Your task to perform on an android device: uninstall "Expedia: Hotels, Flights & Car" Image 0: 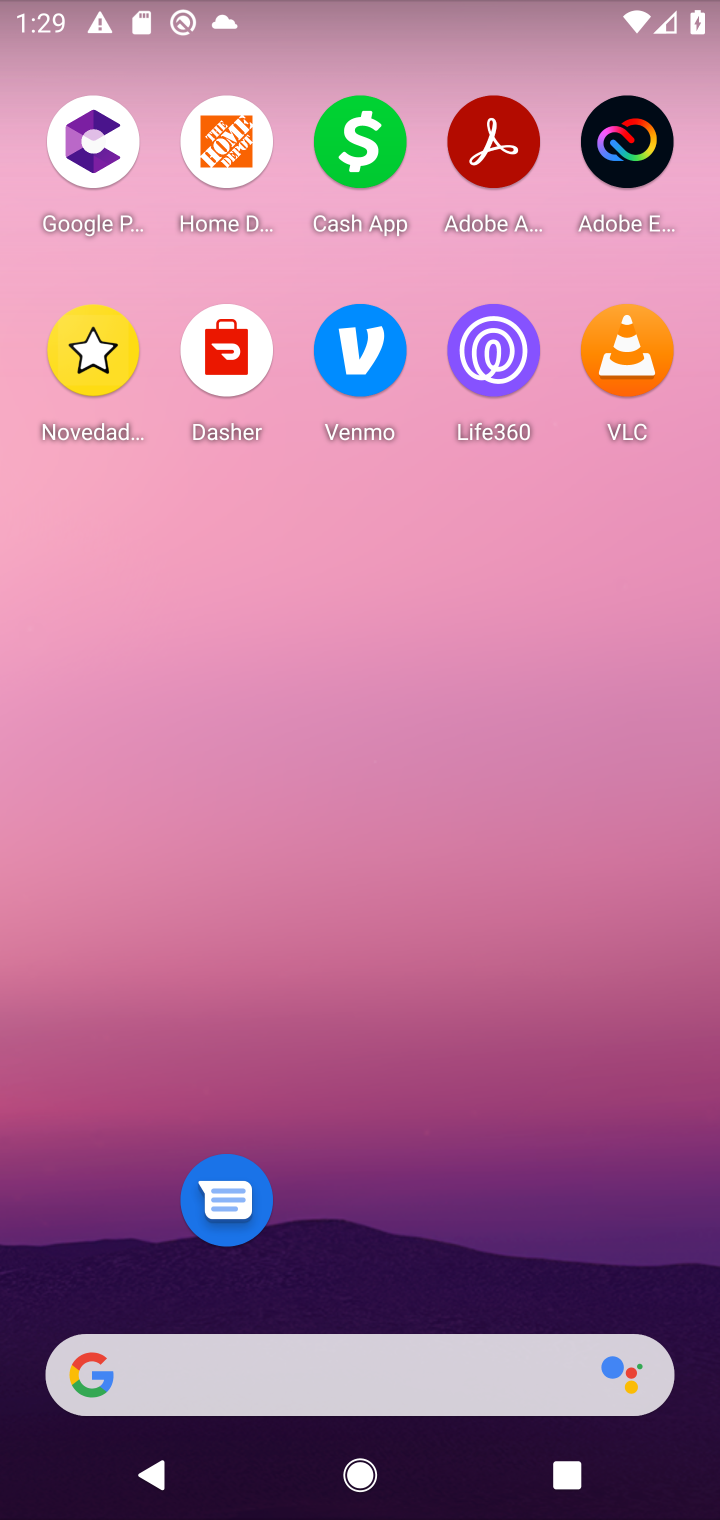
Step 0: press home button
Your task to perform on an android device: uninstall "Expedia: Hotels, Flights & Car" Image 1: 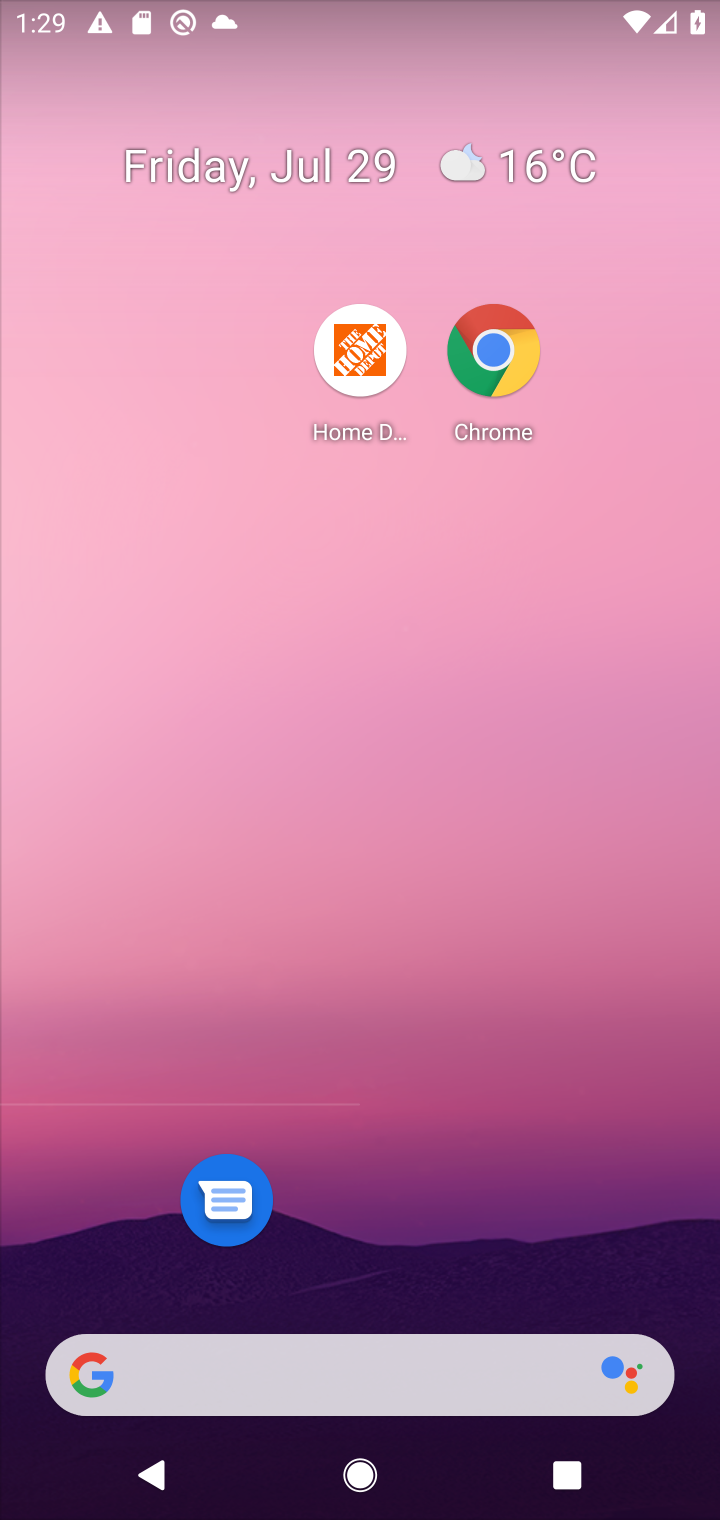
Step 1: drag from (566, 827) to (568, 519)
Your task to perform on an android device: uninstall "Expedia: Hotels, Flights & Car" Image 2: 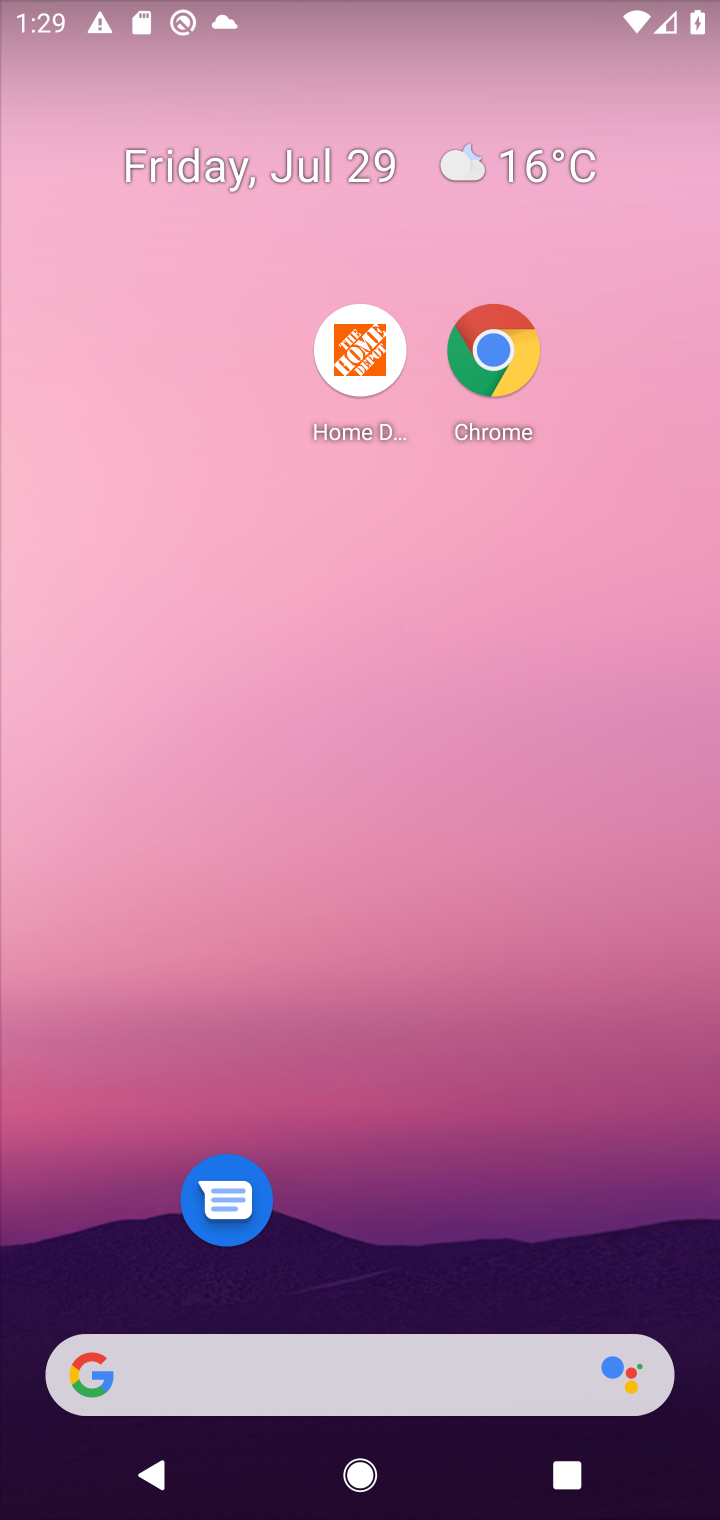
Step 2: drag from (447, 1232) to (500, 44)
Your task to perform on an android device: uninstall "Expedia: Hotels, Flights & Car" Image 3: 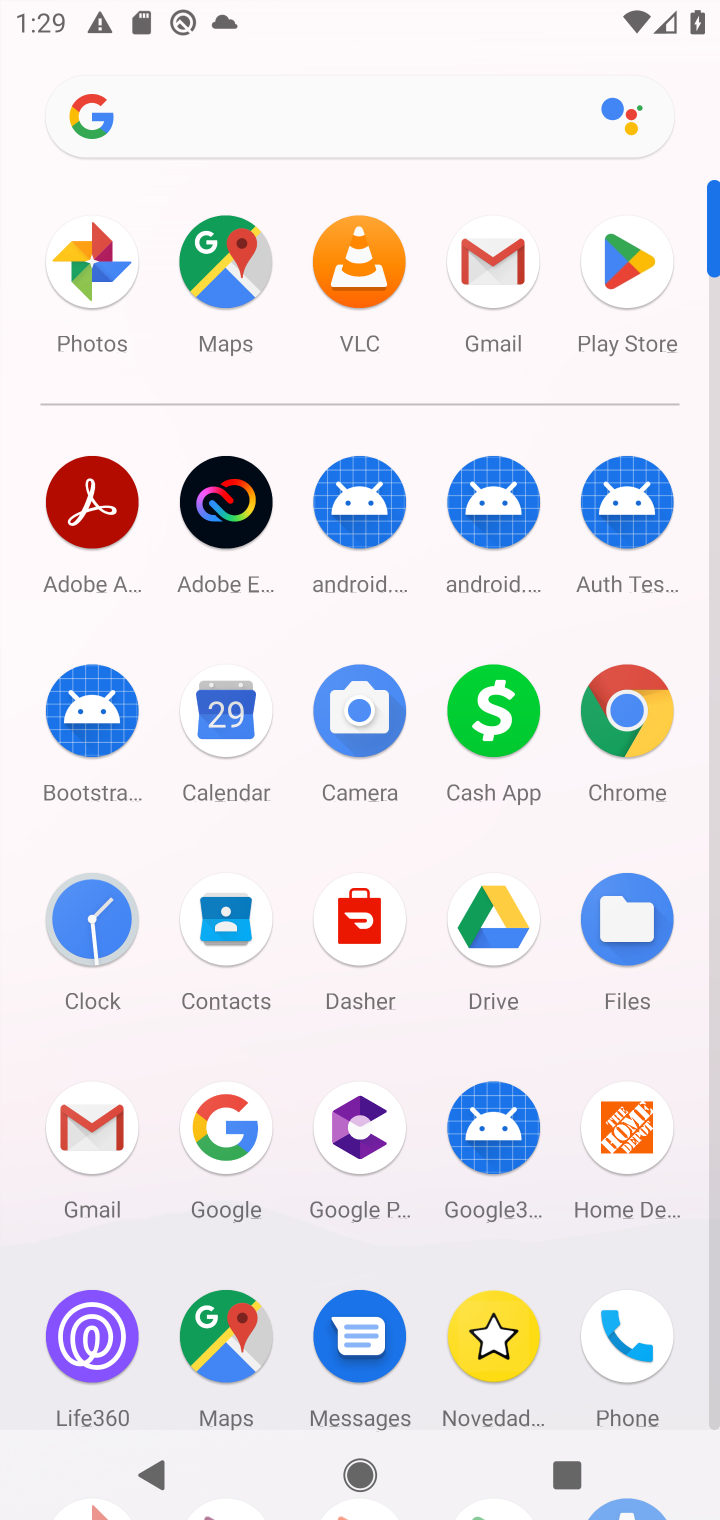
Step 3: click (631, 267)
Your task to perform on an android device: uninstall "Expedia: Hotels, Flights & Car" Image 4: 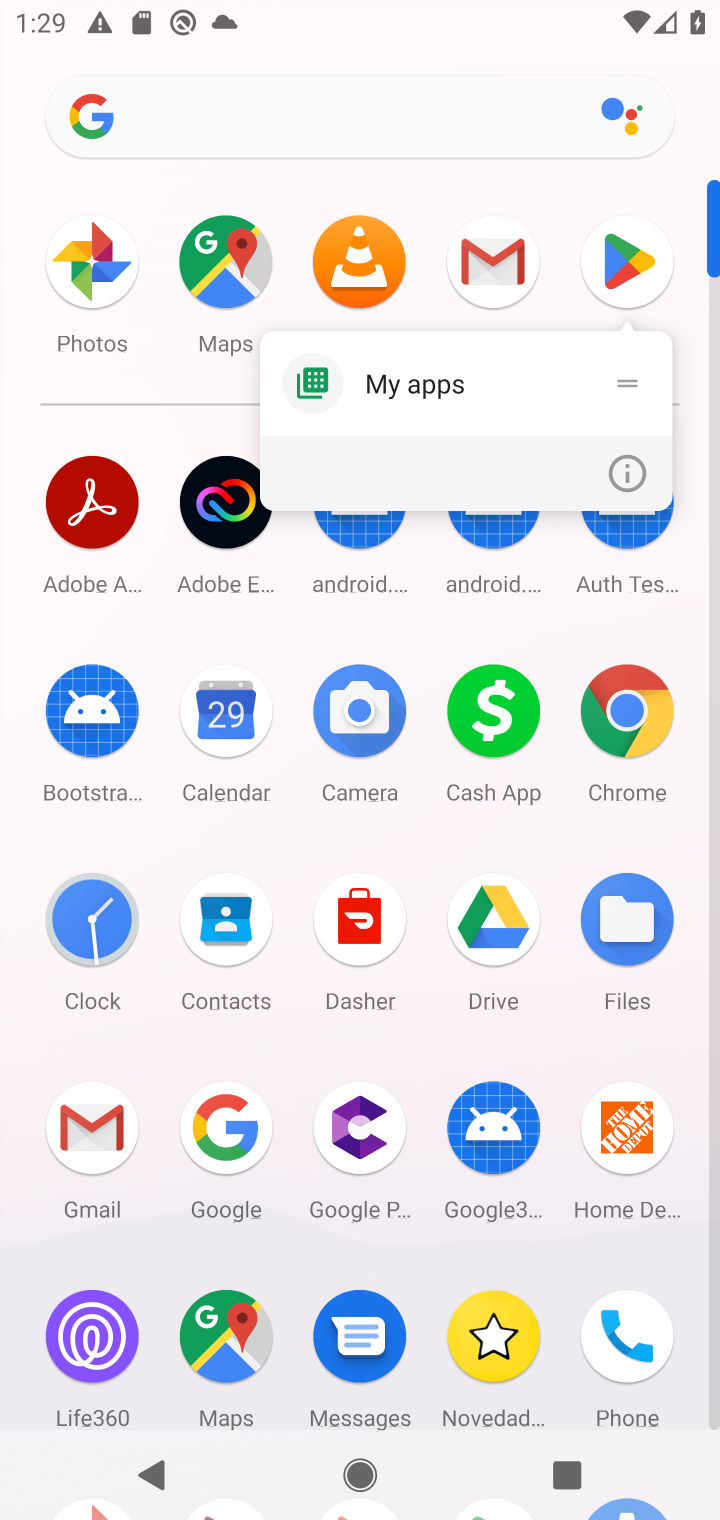
Step 4: click (595, 258)
Your task to perform on an android device: uninstall "Expedia: Hotels, Flights & Car" Image 5: 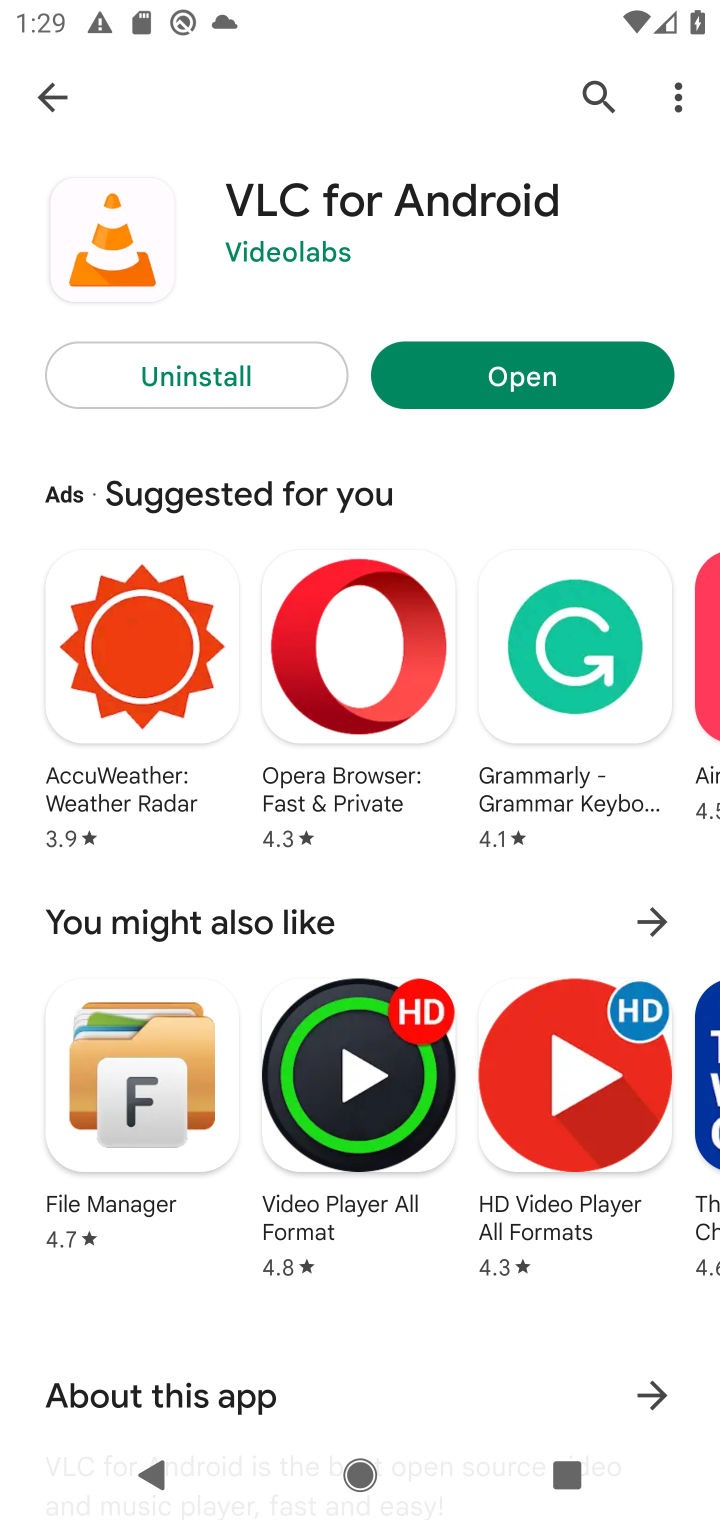
Step 5: click (595, 99)
Your task to perform on an android device: uninstall "Expedia: Hotels, Flights & Car" Image 6: 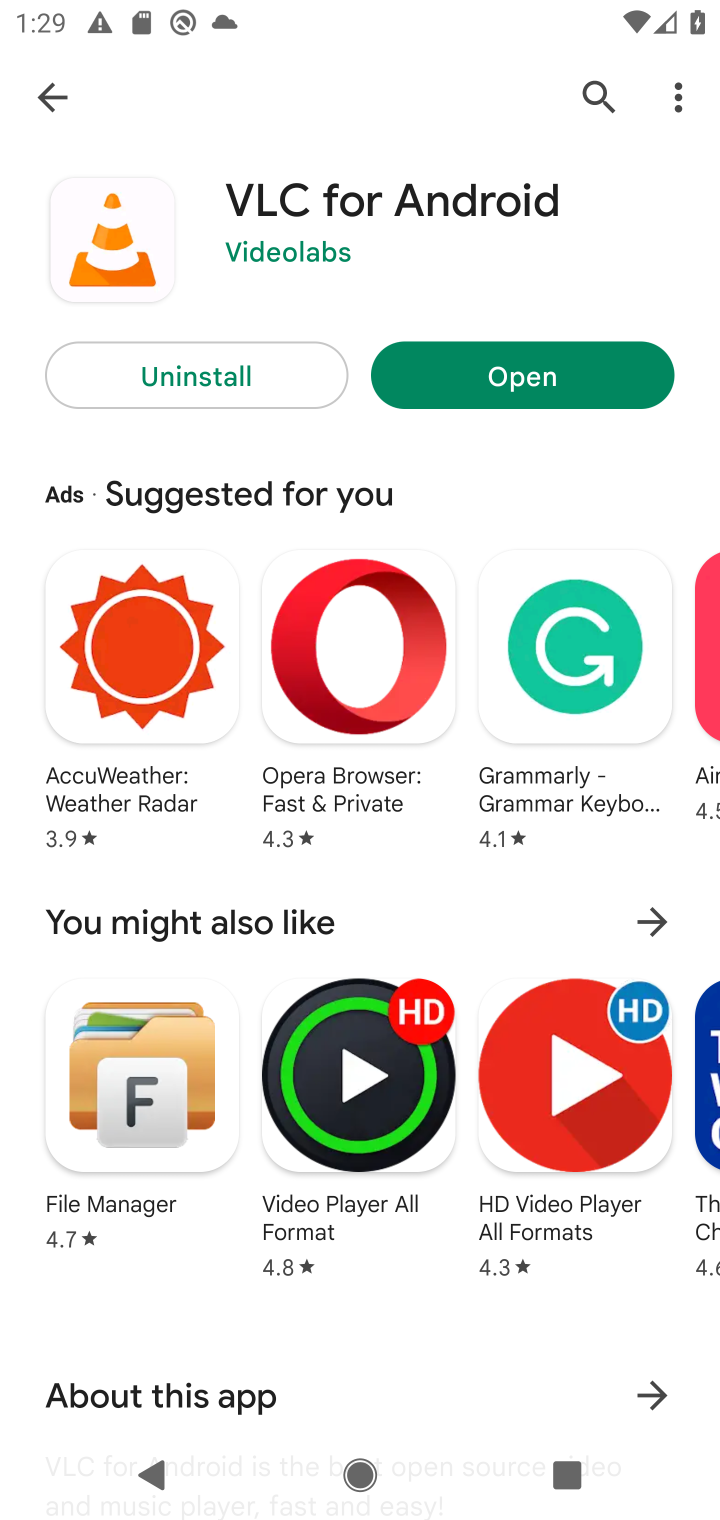
Step 6: click (588, 91)
Your task to perform on an android device: uninstall "Expedia: Hotels, Flights & Car" Image 7: 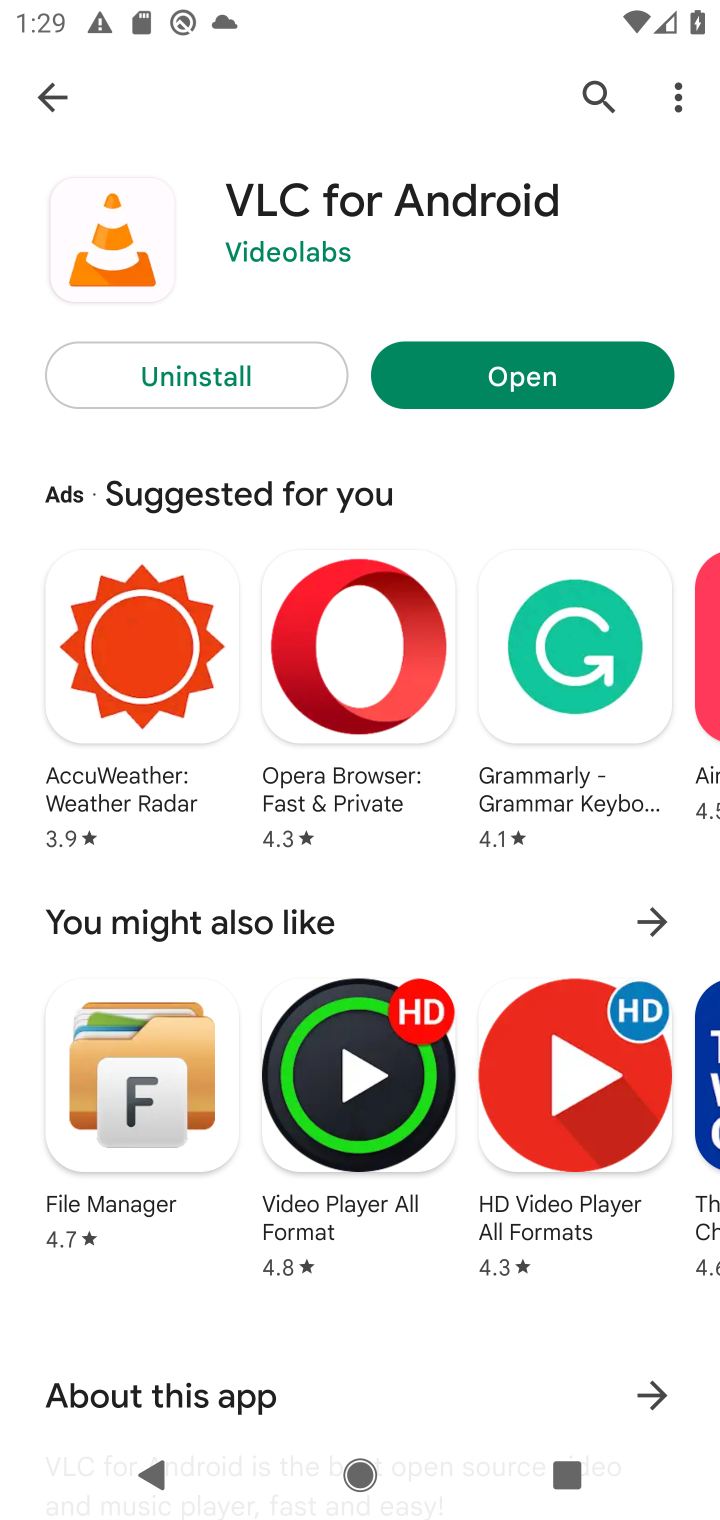
Step 7: click (578, 78)
Your task to perform on an android device: uninstall "Expedia: Hotels, Flights & Car" Image 8: 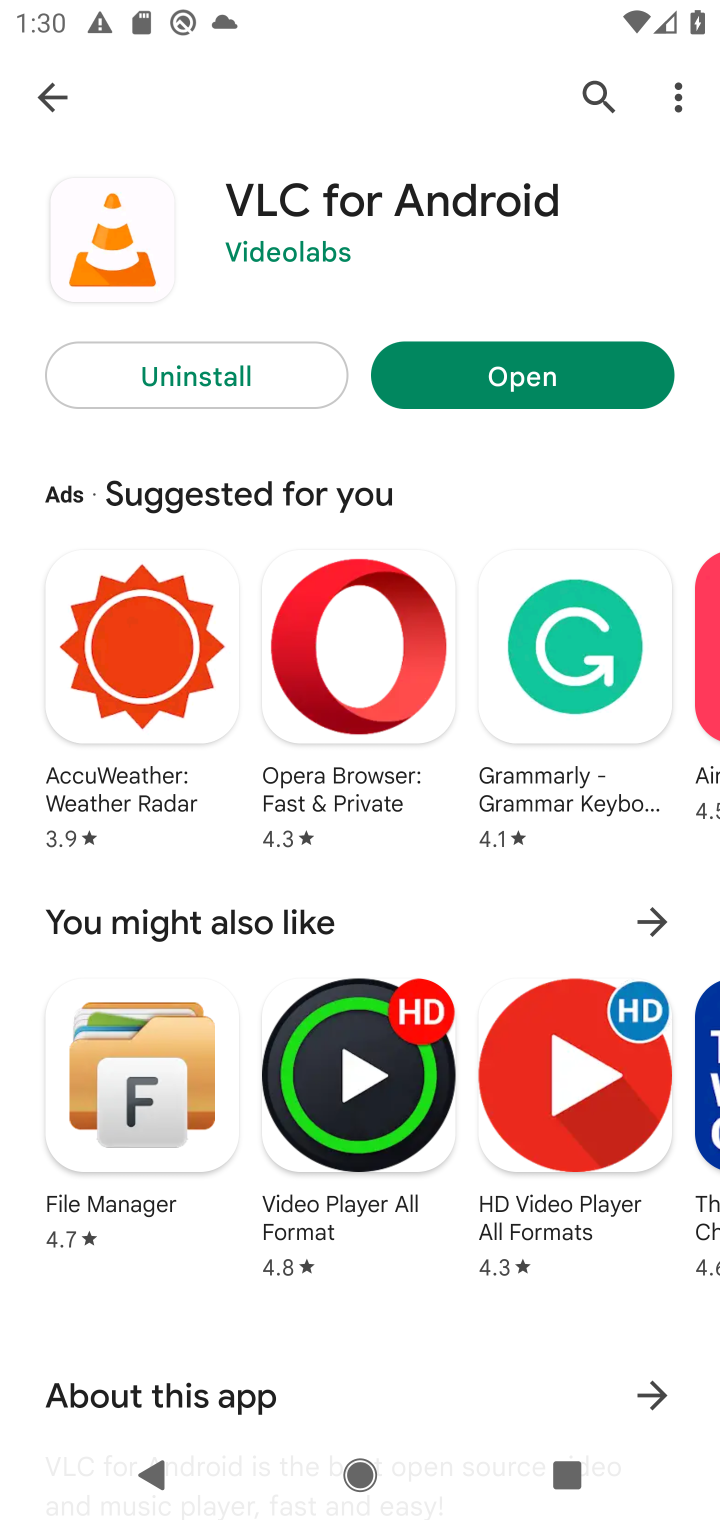
Step 8: click (594, 106)
Your task to perform on an android device: uninstall "Expedia: Hotels, Flights & Car" Image 9: 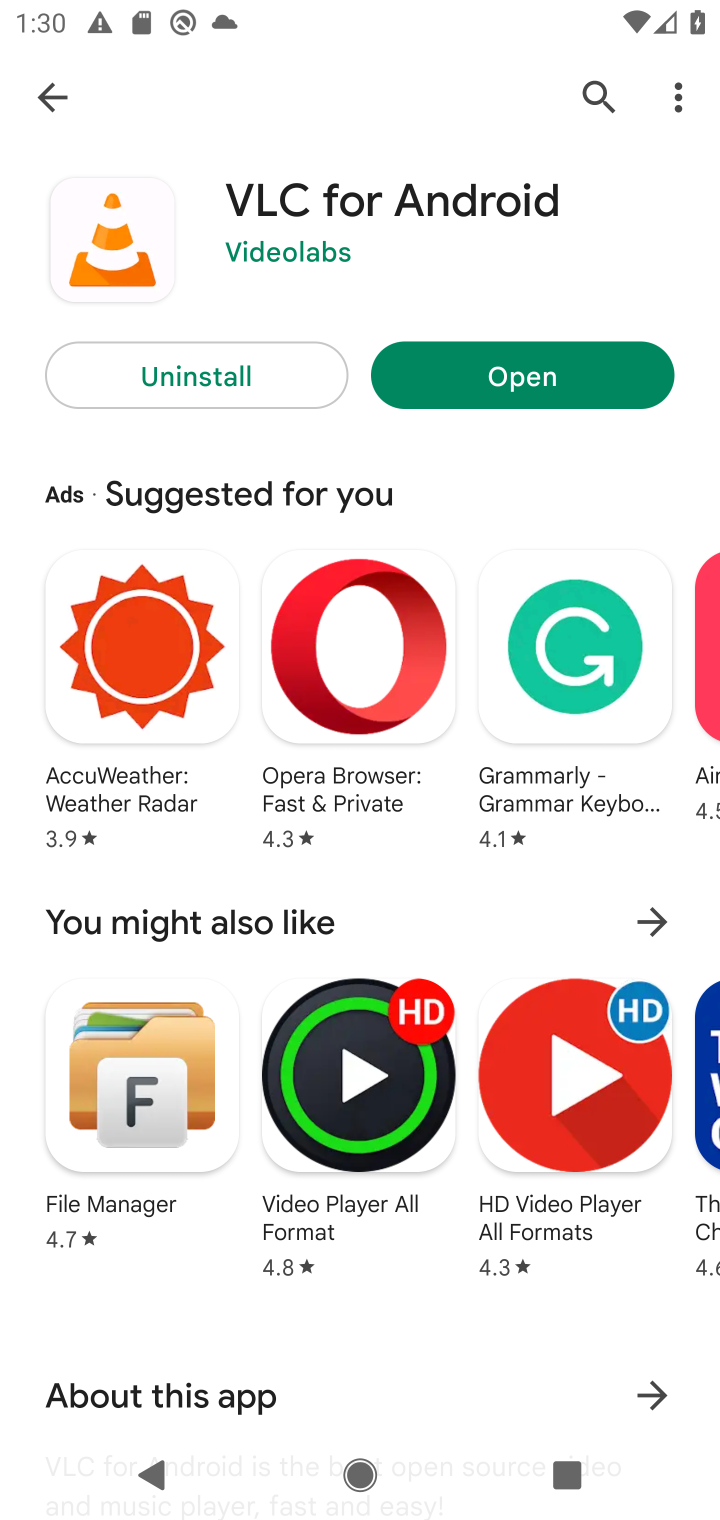
Step 9: task complete